Your task to perform on an android device: turn notification dots on Image 0: 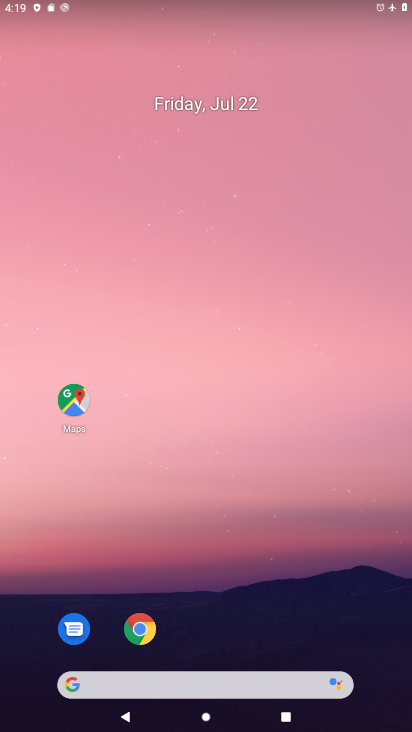
Step 0: drag from (245, 623) to (225, 141)
Your task to perform on an android device: turn notification dots on Image 1: 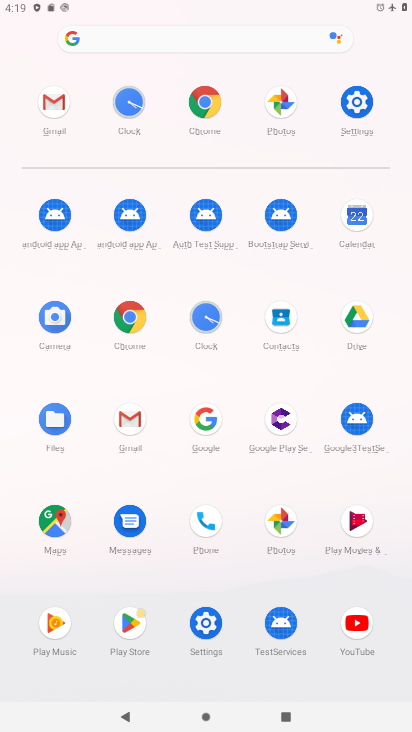
Step 1: click (358, 97)
Your task to perform on an android device: turn notification dots on Image 2: 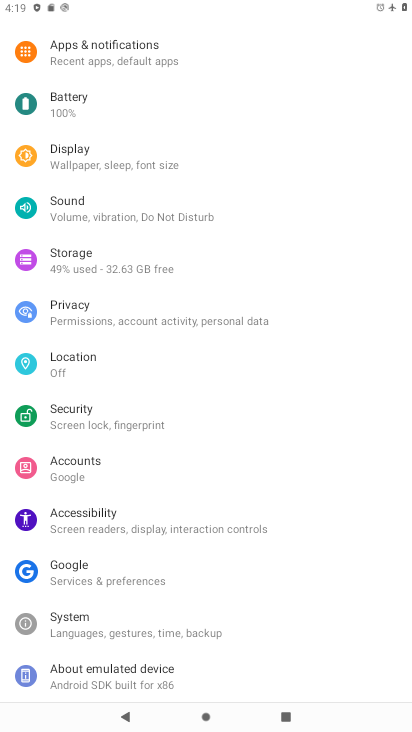
Step 2: click (90, 48)
Your task to perform on an android device: turn notification dots on Image 3: 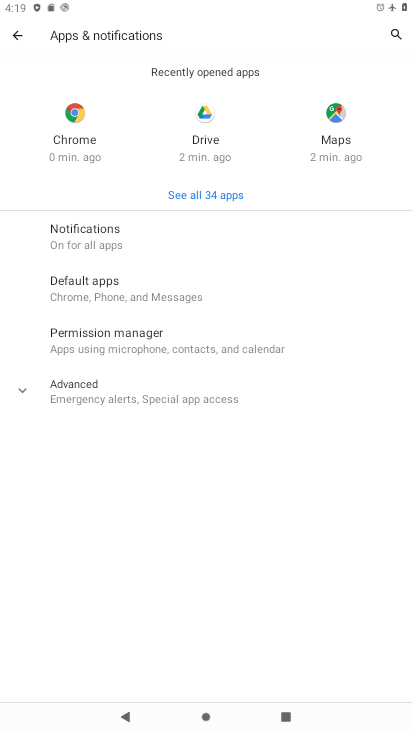
Step 3: click (91, 237)
Your task to perform on an android device: turn notification dots on Image 4: 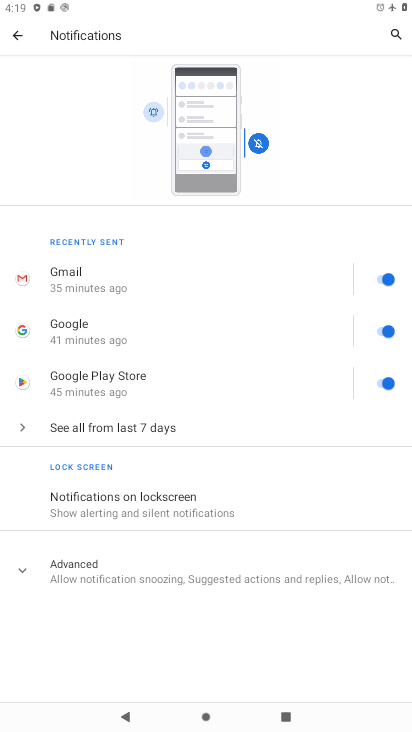
Step 4: click (167, 559)
Your task to perform on an android device: turn notification dots on Image 5: 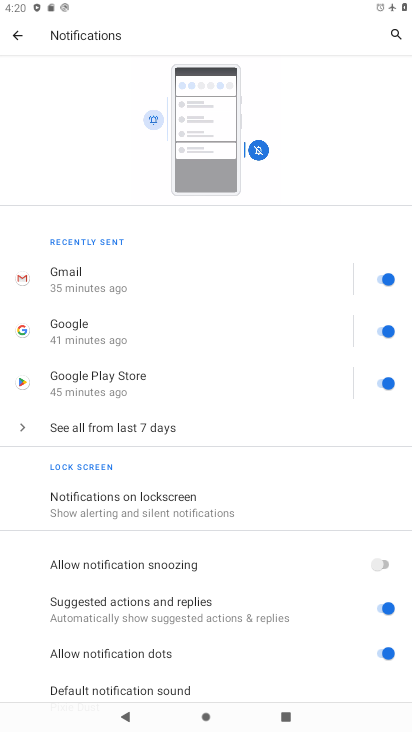
Step 5: task complete